Your task to perform on an android device: When is my next meeting? Image 0: 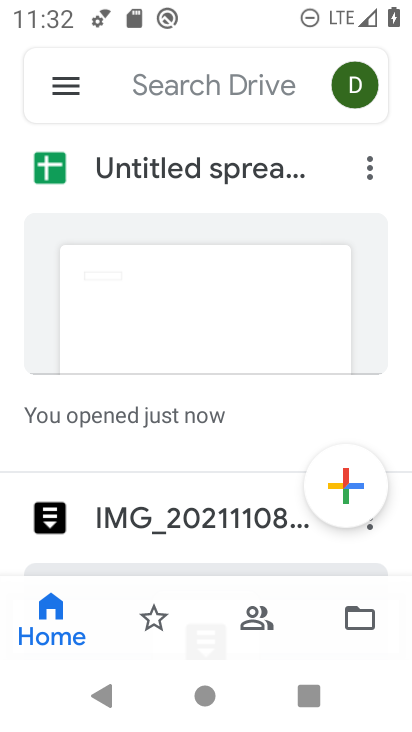
Step 0: press home button
Your task to perform on an android device: When is my next meeting? Image 1: 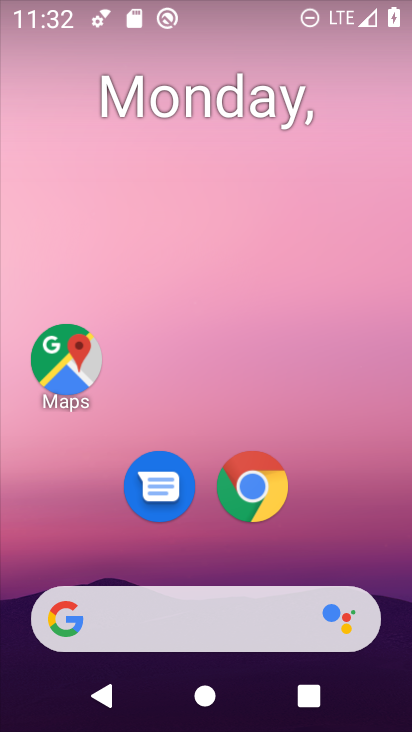
Step 1: drag from (65, 386) to (180, 117)
Your task to perform on an android device: When is my next meeting? Image 2: 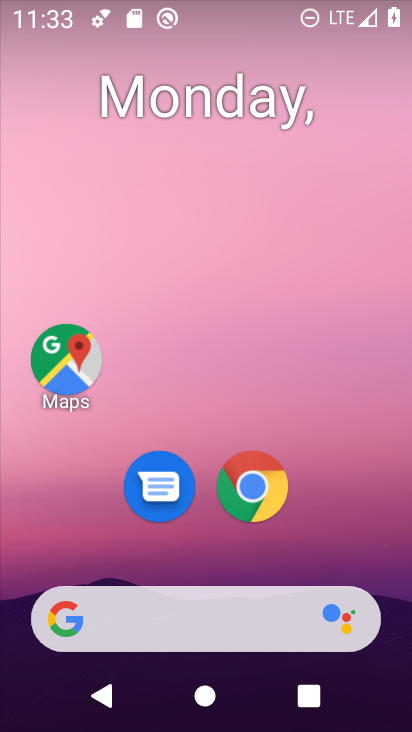
Step 2: drag from (34, 538) to (295, 69)
Your task to perform on an android device: When is my next meeting? Image 3: 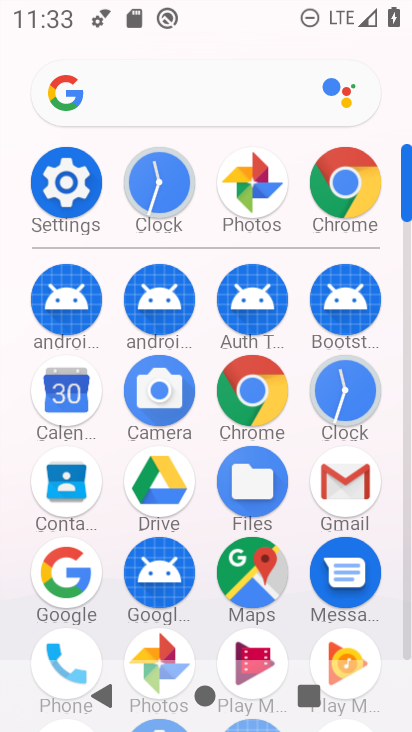
Step 3: click (52, 404)
Your task to perform on an android device: When is my next meeting? Image 4: 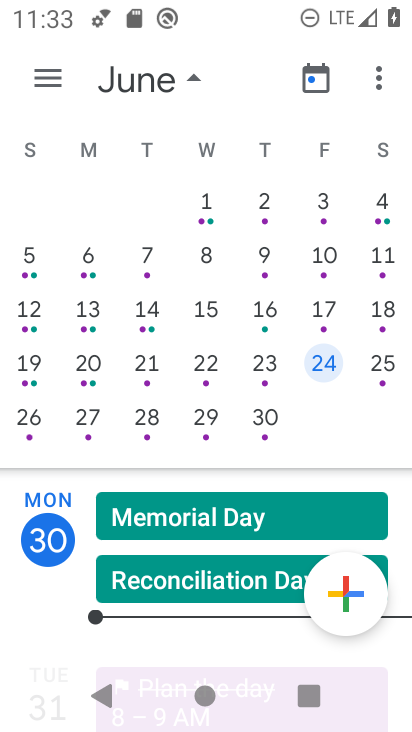
Step 4: task complete